Your task to perform on an android device: check battery use Image 0: 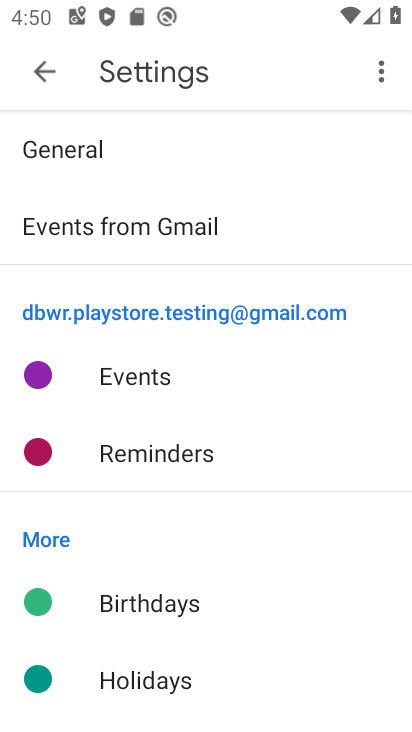
Step 0: press home button
Your task to perform on an android device: check battery use Image 1: 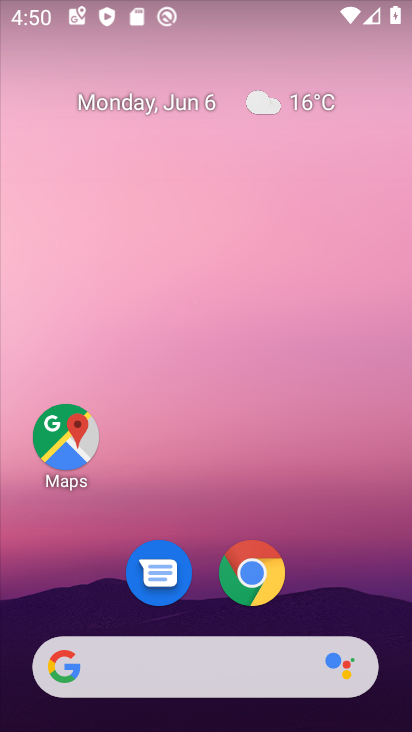
Step 1: drag from (341, 555) to (268, 91)
Your task to perform on an android device: check battery use Image 2: 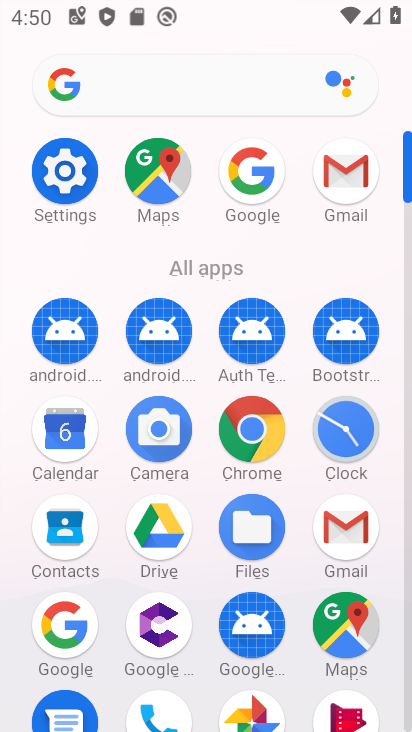
Step 2: click (71, 170)
Your task to perform on an android device: check battery use Image 3: 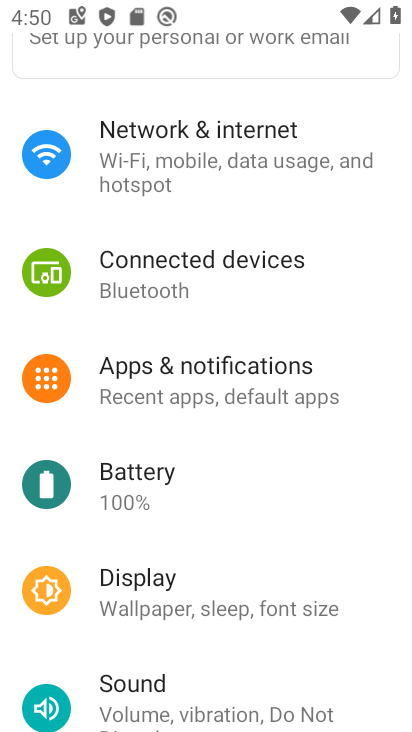
Step 3: click (158, 469)
Your task to perform on an android device: check battery use Image 4: 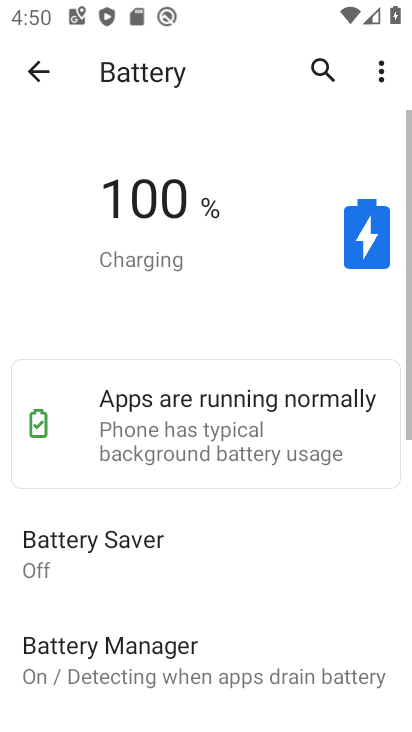
Step 4: click (387, 77)
Your task to perform on an android device: check battery use Image 5: 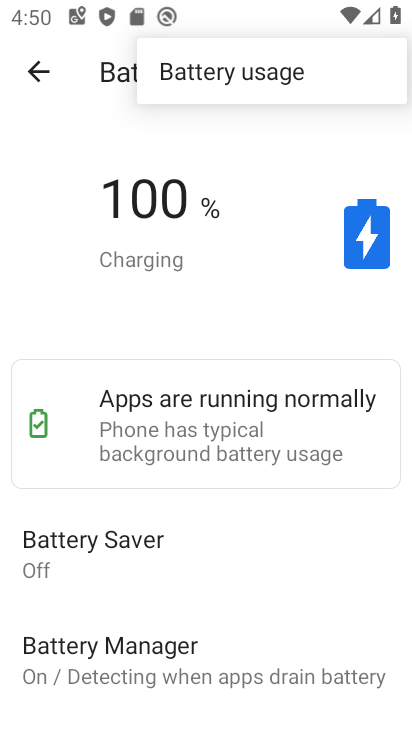
Step 5: click (262, 70)
Your task to perform on an android device: check battery use Image 6: 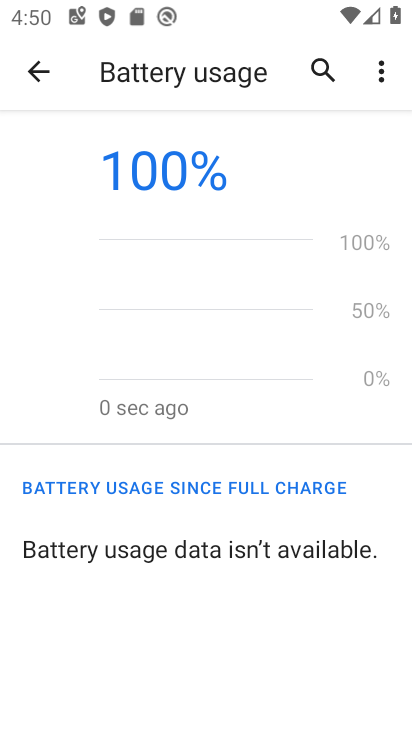
Step 6: task complete